Your task to perform on an android device: See recent photos Image 0: 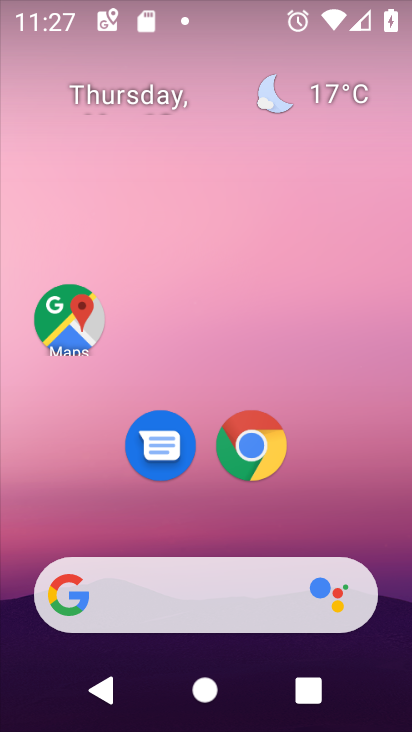
Step 0: drag from (303, 529) to (348, 162)
Your task to perform on an android device: See recent photos Image 1: 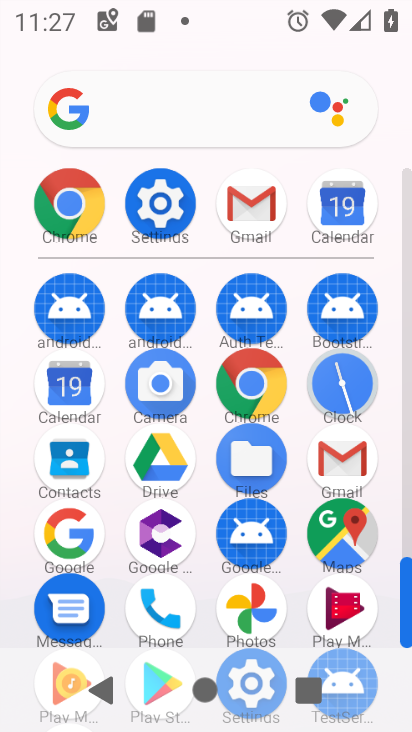
Step 1: click (260, 605)
Your task to perform on an android device: See recent photos Image 2: 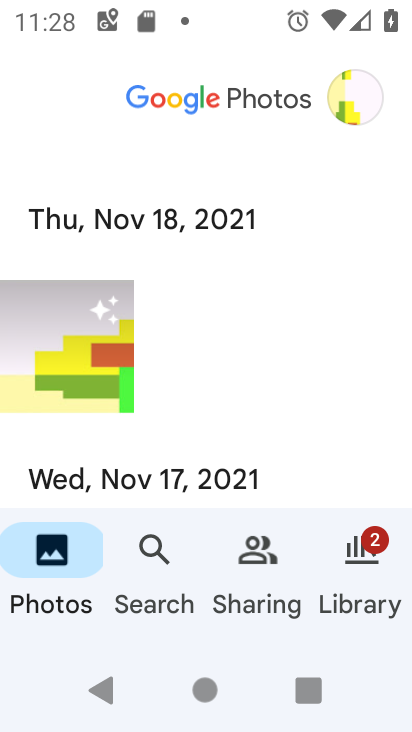
Step 2: task complete